Your task to perform on an android device: install app "Adobe Express: Graphic Design" Image 0: 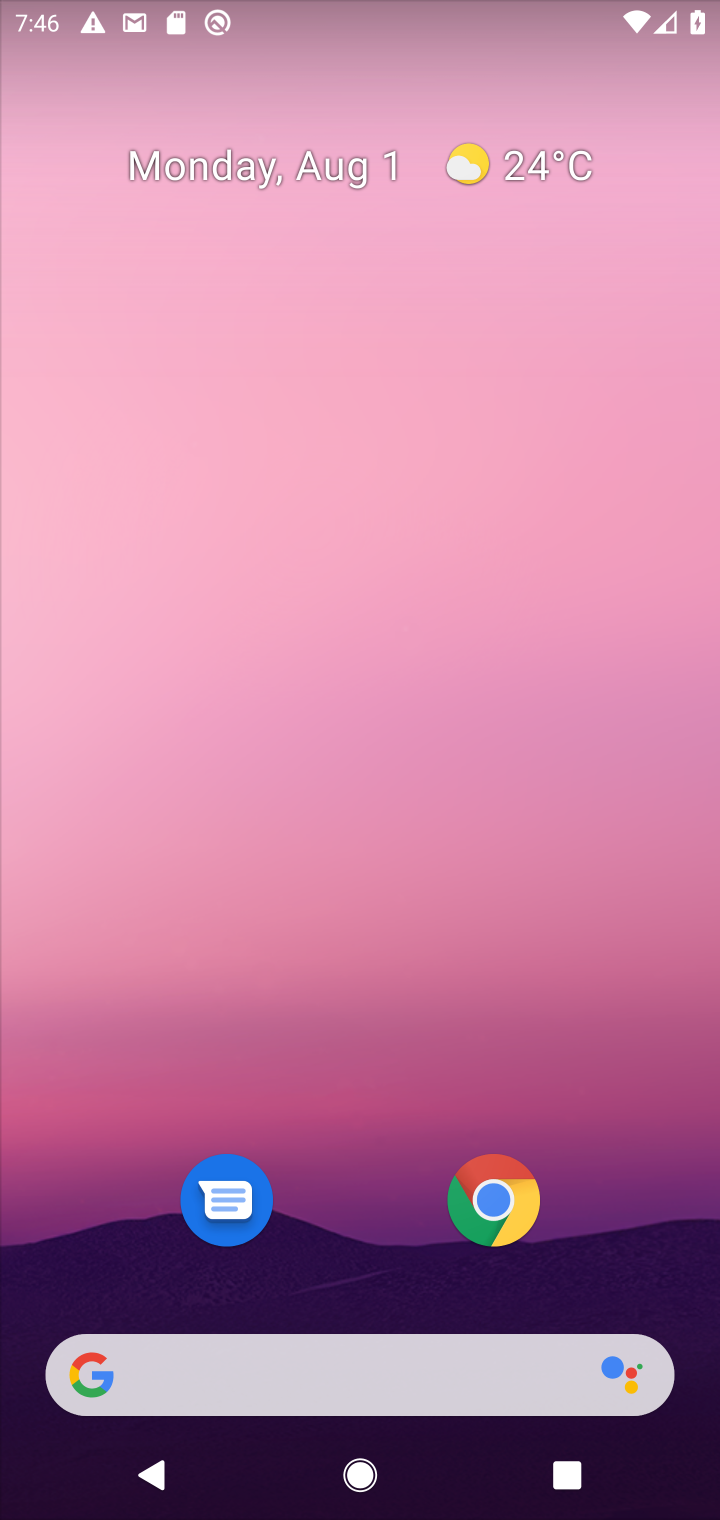
Step 0: drag from (411, 1108) to (440, 104)
Your task to perform on an android device: install app "Adobe Express: Graphic Design" Image 1: 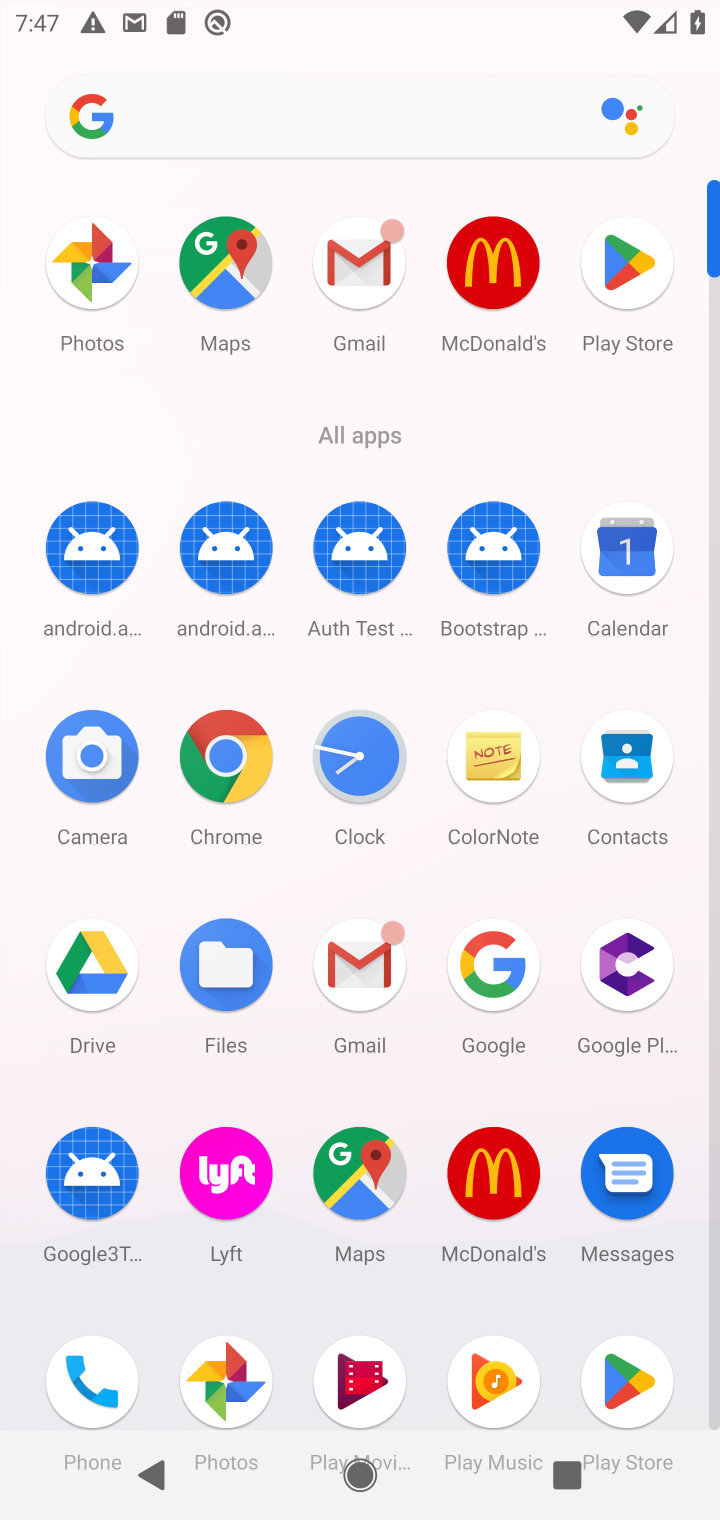
Step 1: click (622, 252)
Your task to perform on an android device: install app "Adobe Express: Graphic Design" Image 2: 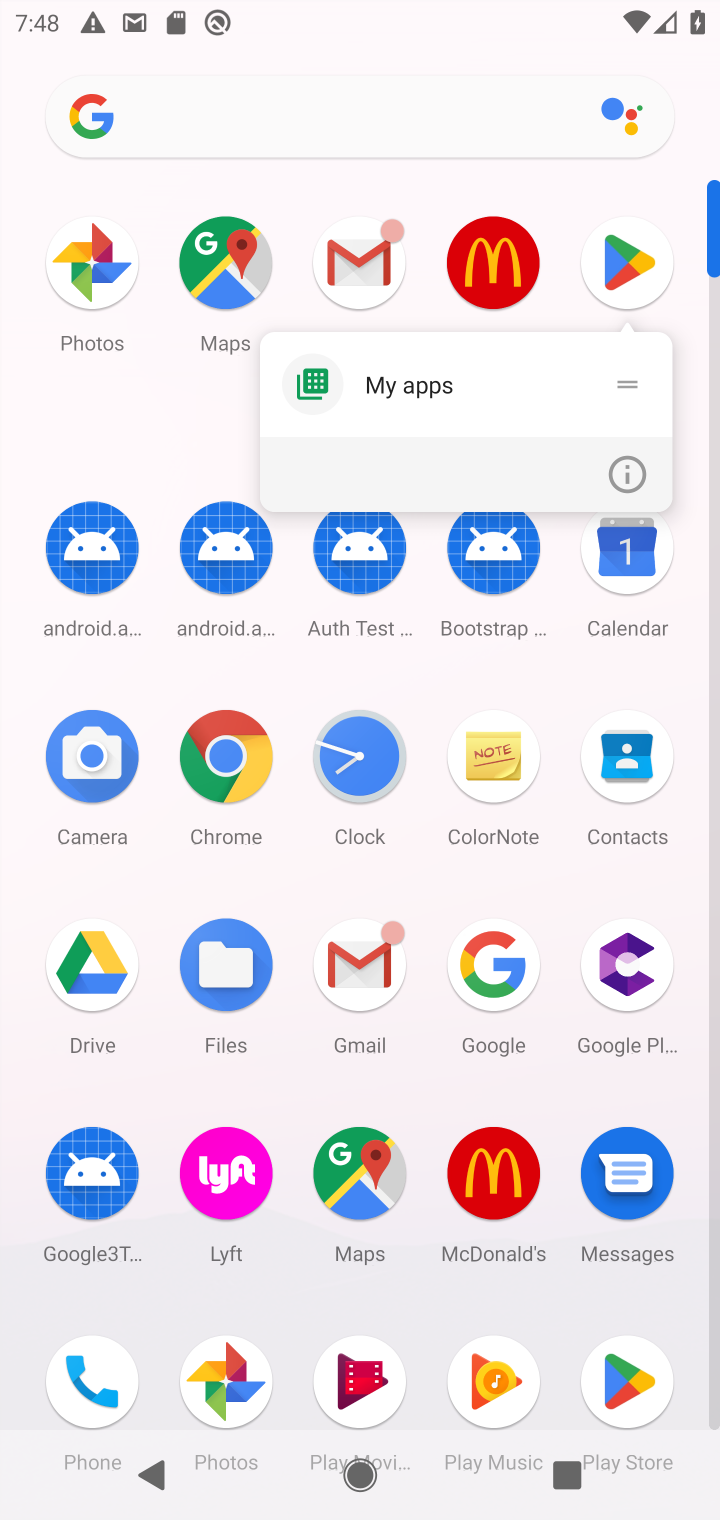
Step 2: click (627, 263)
Your task to perform on an android device: install app "Adobe Express: Graphic Design" Image 3: 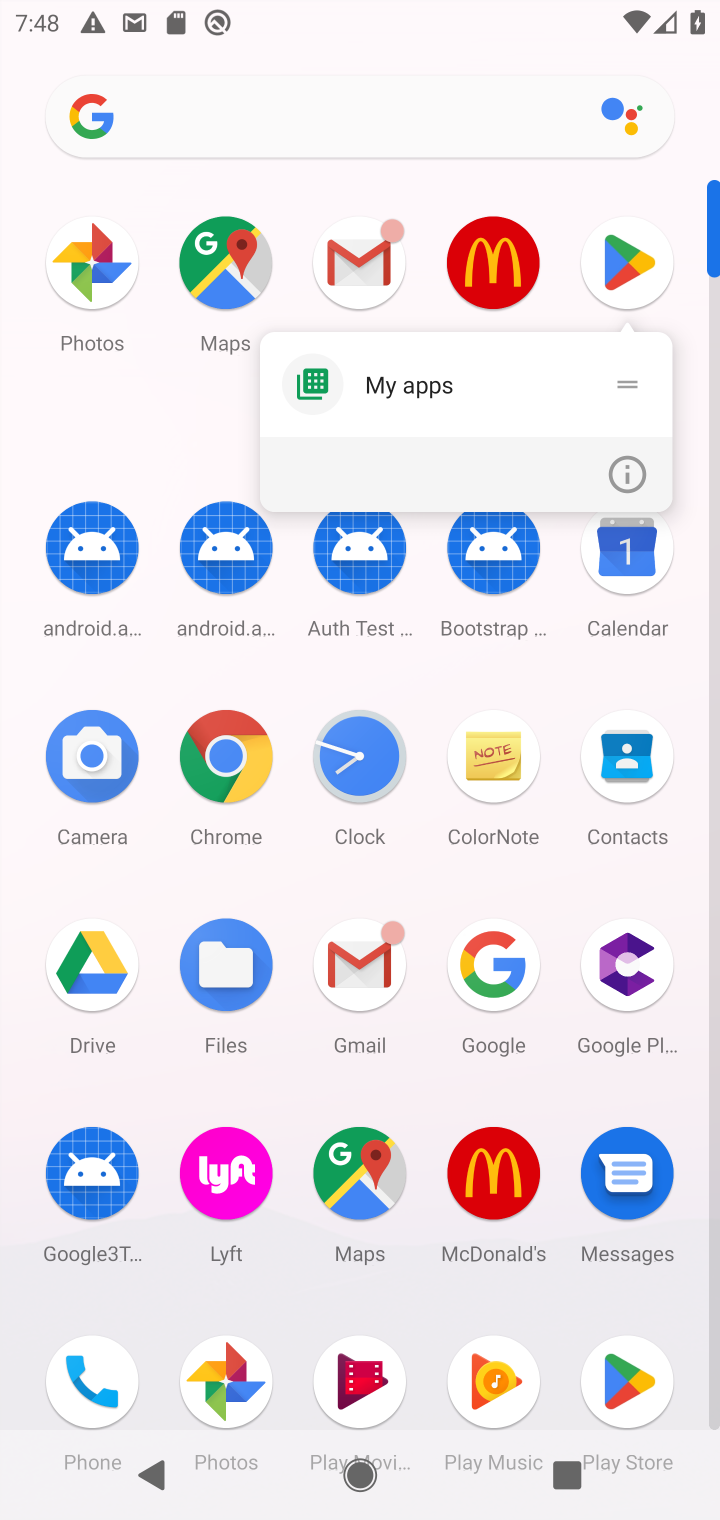
Step 3: click (627, 266)
Your task to perform on an android device: install app "Adobe Express: Graphic Design" Image 4: 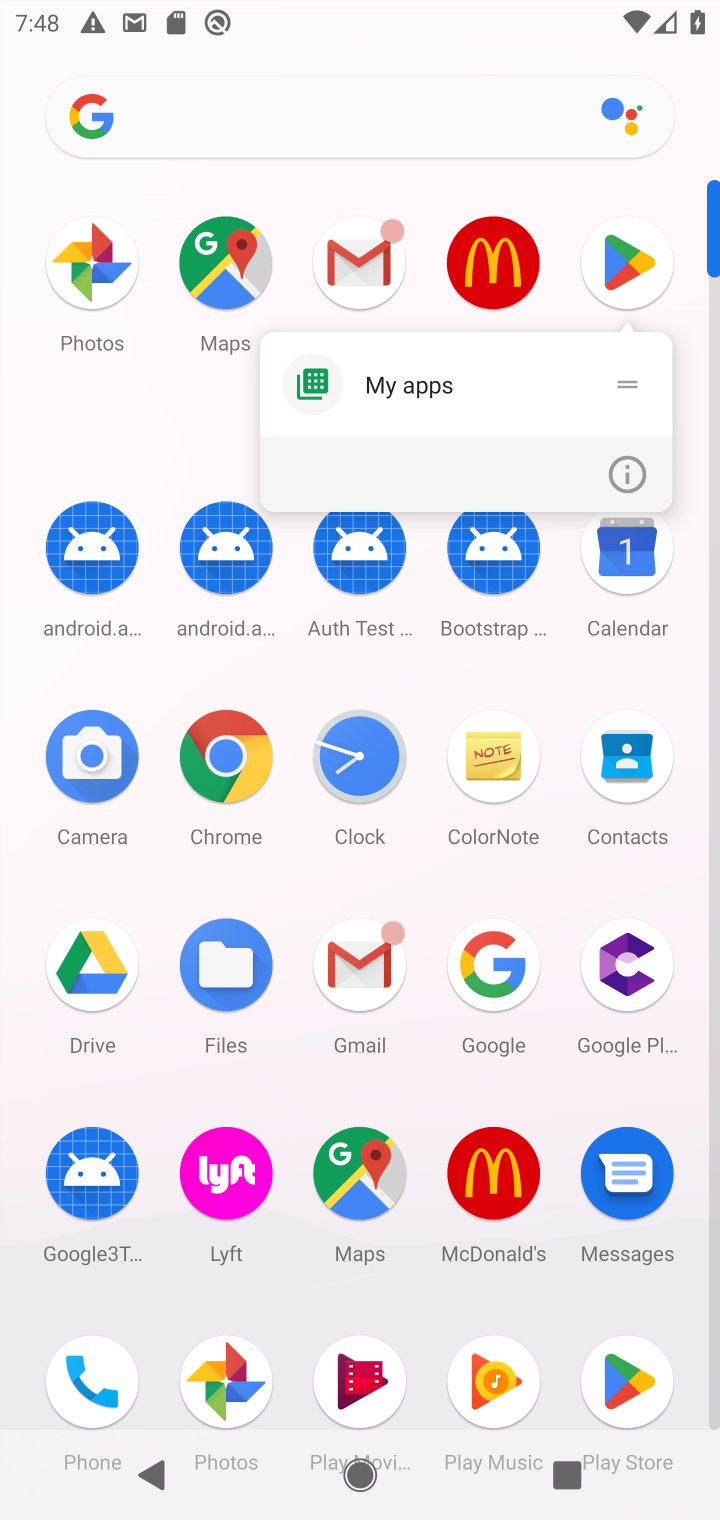
Step 4: click (640, 258)
Your task to perform on an android device: install app "Adobe Express: Graphic Design" Image 5: 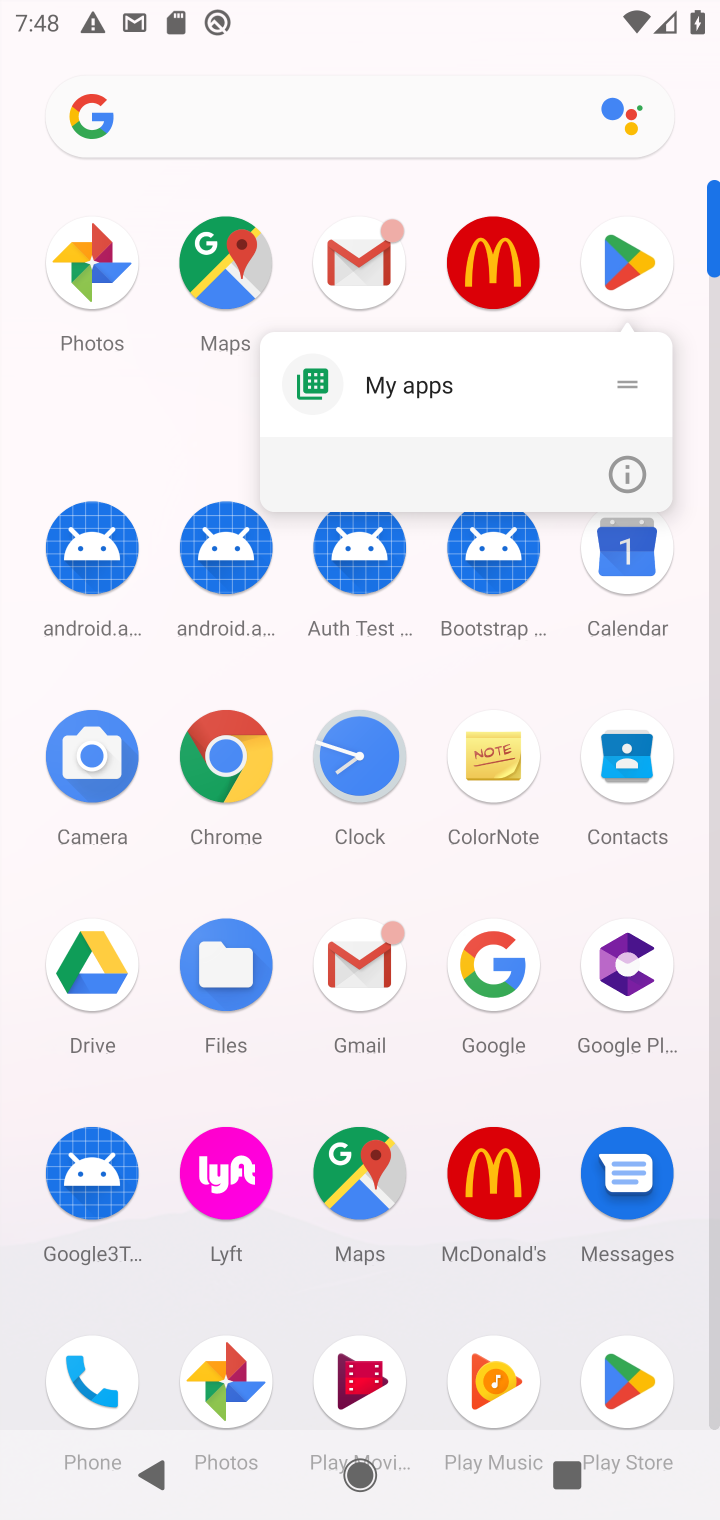
Step 5: click (640, 258)
Your task to perform on an android device: install app "Adobe Express: Graphic Design" Image 6: 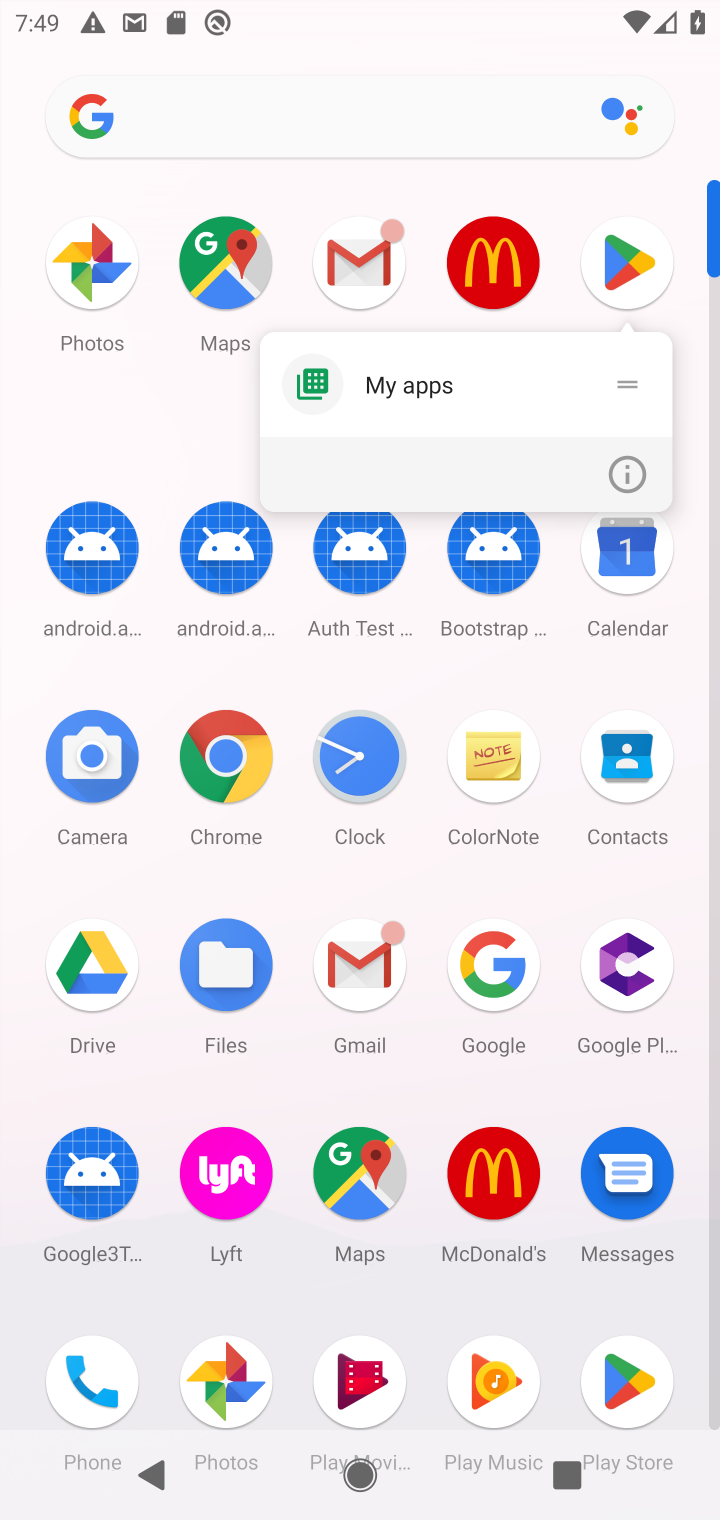
Step 6: click (605, 269)
Your task to perform on an android device: install app "Adobe Express: Graphic Design" Image 7: 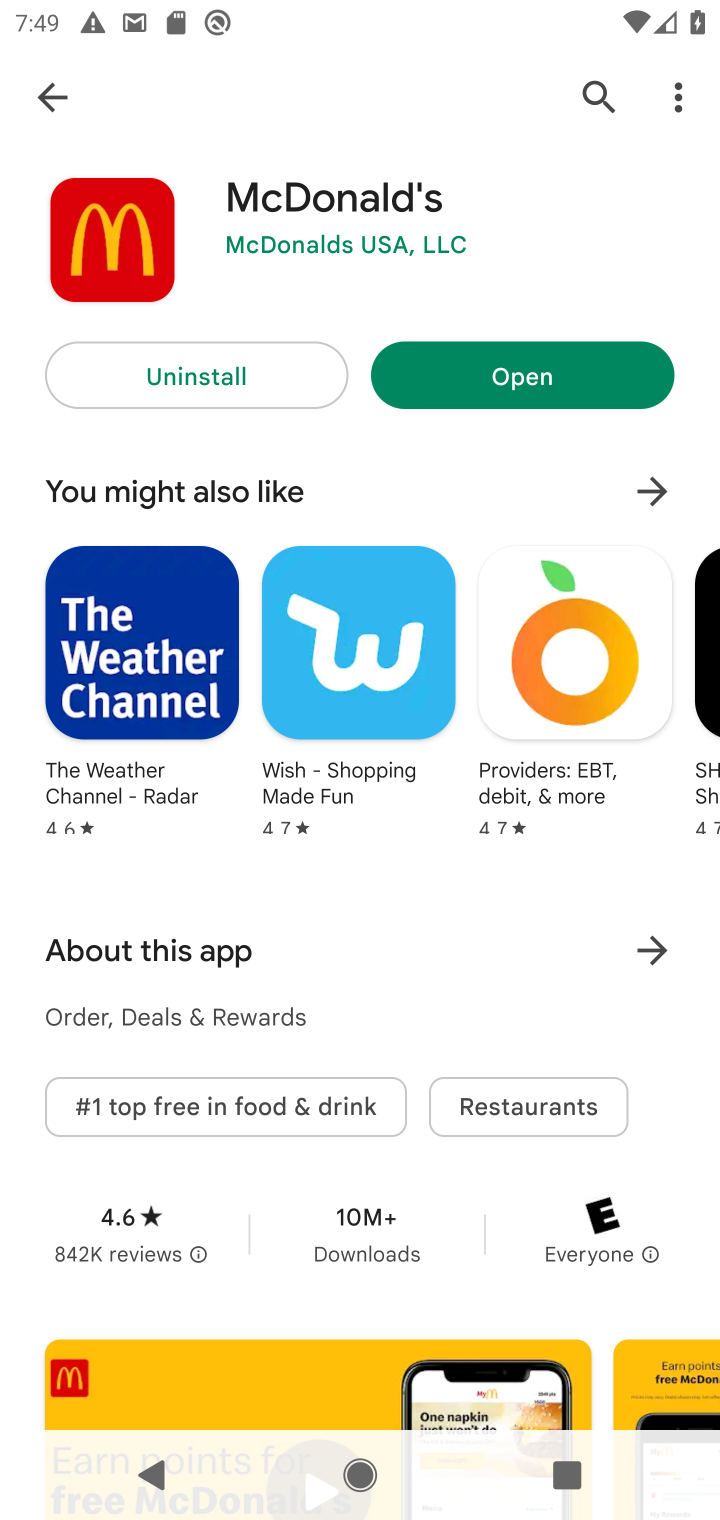
Step 7: click (63, 95)
Your task to perform on an android device: install app "Adobe Express: Graphic Design" Image 8: 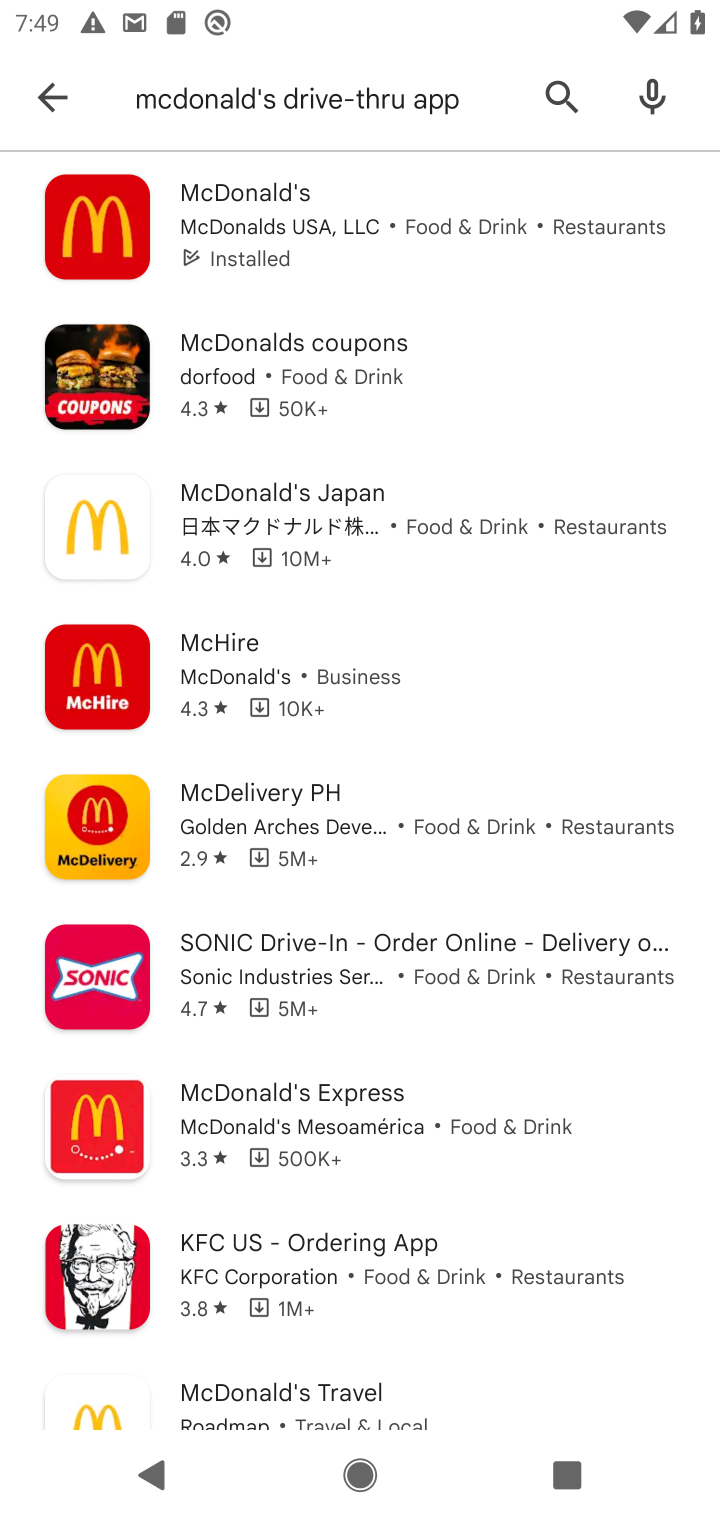
Step 8: click (550, 103)
Your task to perform on an android device: install app "Adobe Express: Graphic Design" Image 9: 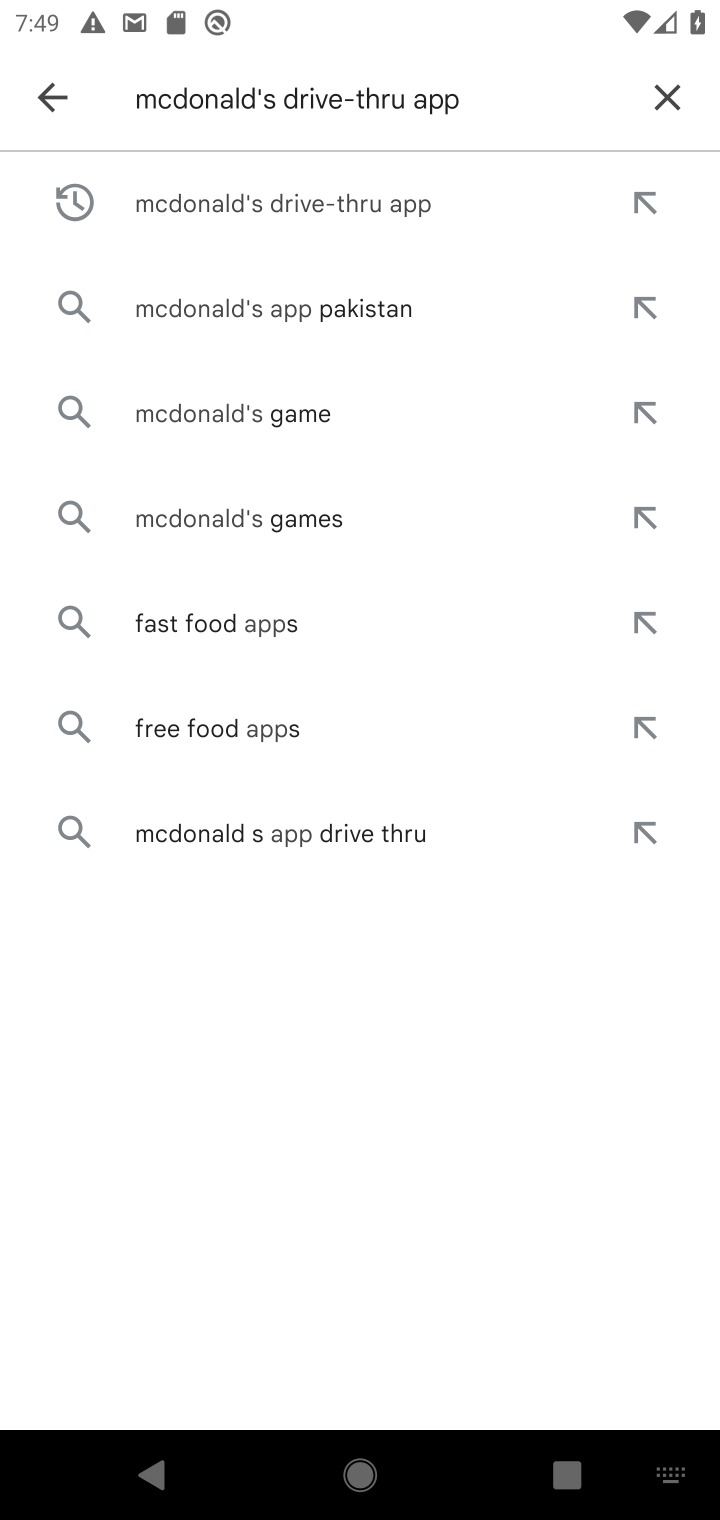
Step 9: click (669, 83)
Your task to perform on an android device: install app "Adobe Express: Graphic Design" Image 10: 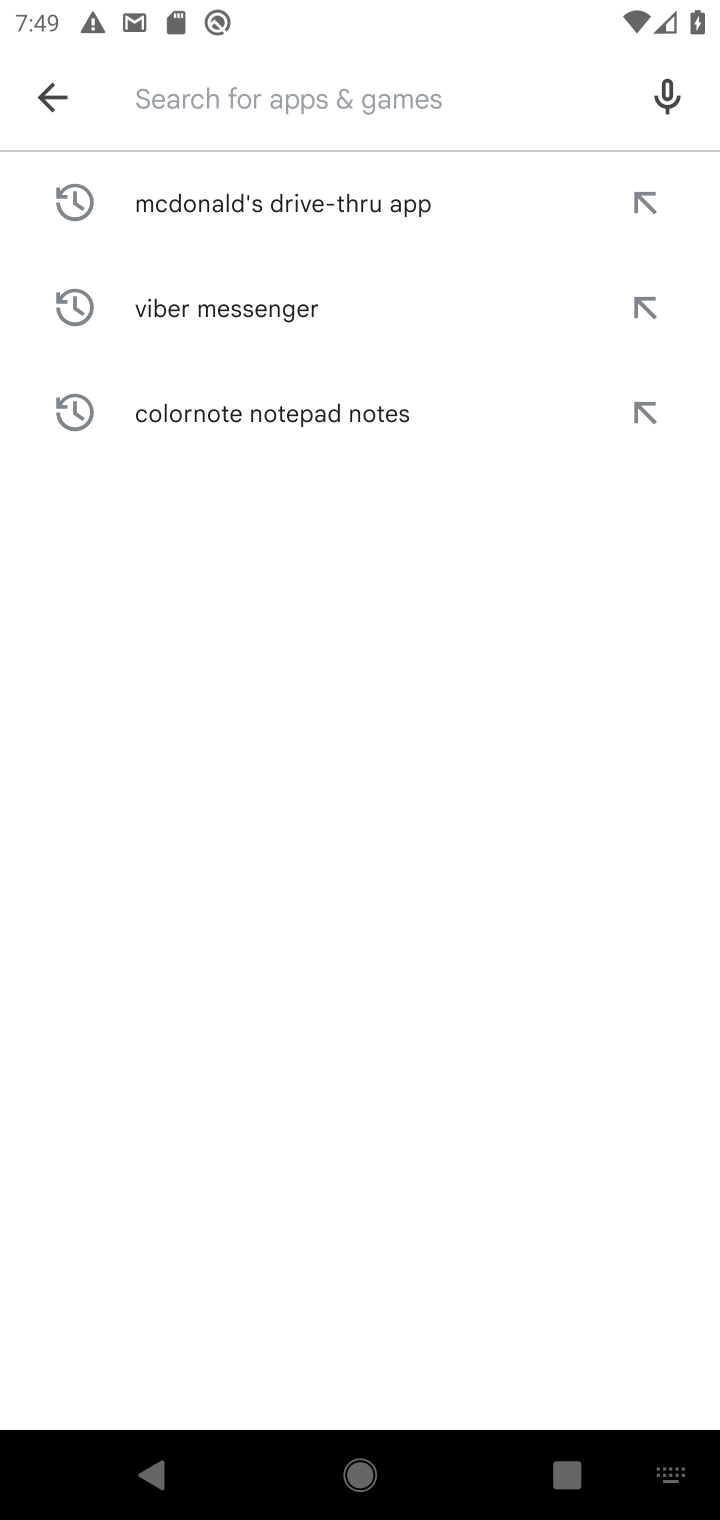
Step 10: type "Adobe Express: Graphic Design"
Your task to perform on an android device: install app "Adobe Express: Graphic Design" Image 11: 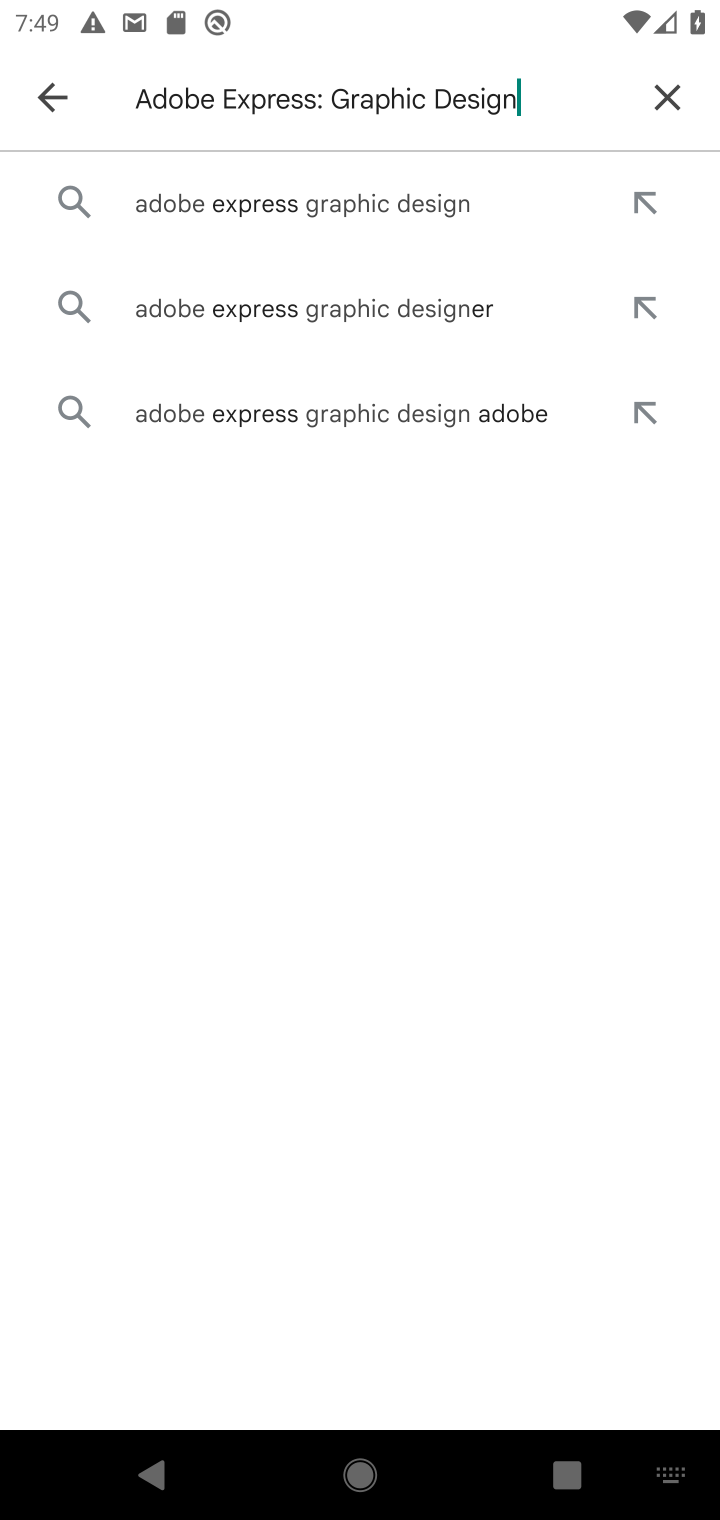
Step 11: click (225, 205)
Your task to perform on an android device: install app "Adobe Express: Graphic Design" Image 12: 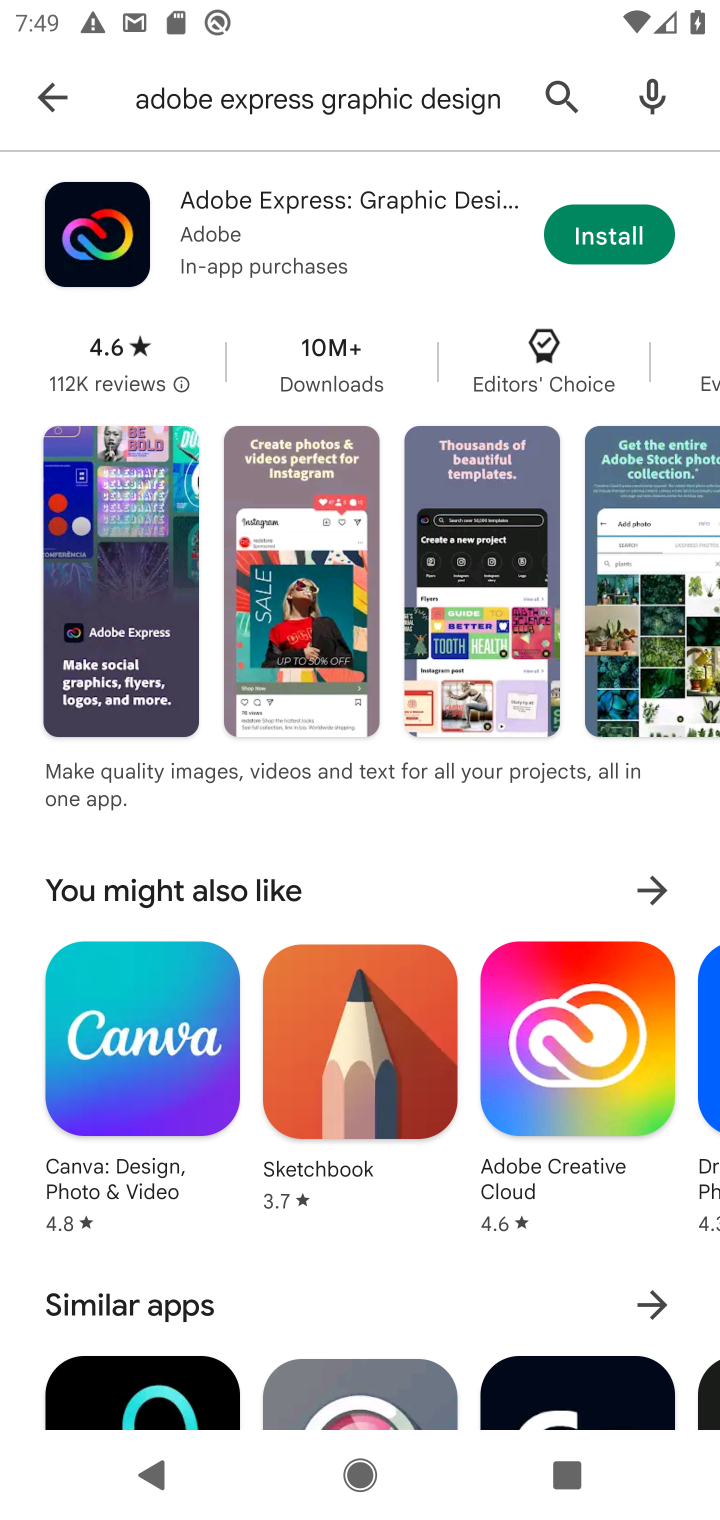
Step 12: click (607, 244)
Your task to perform on an android device: install app "Adobe Express: Graphic Design" Image 13: 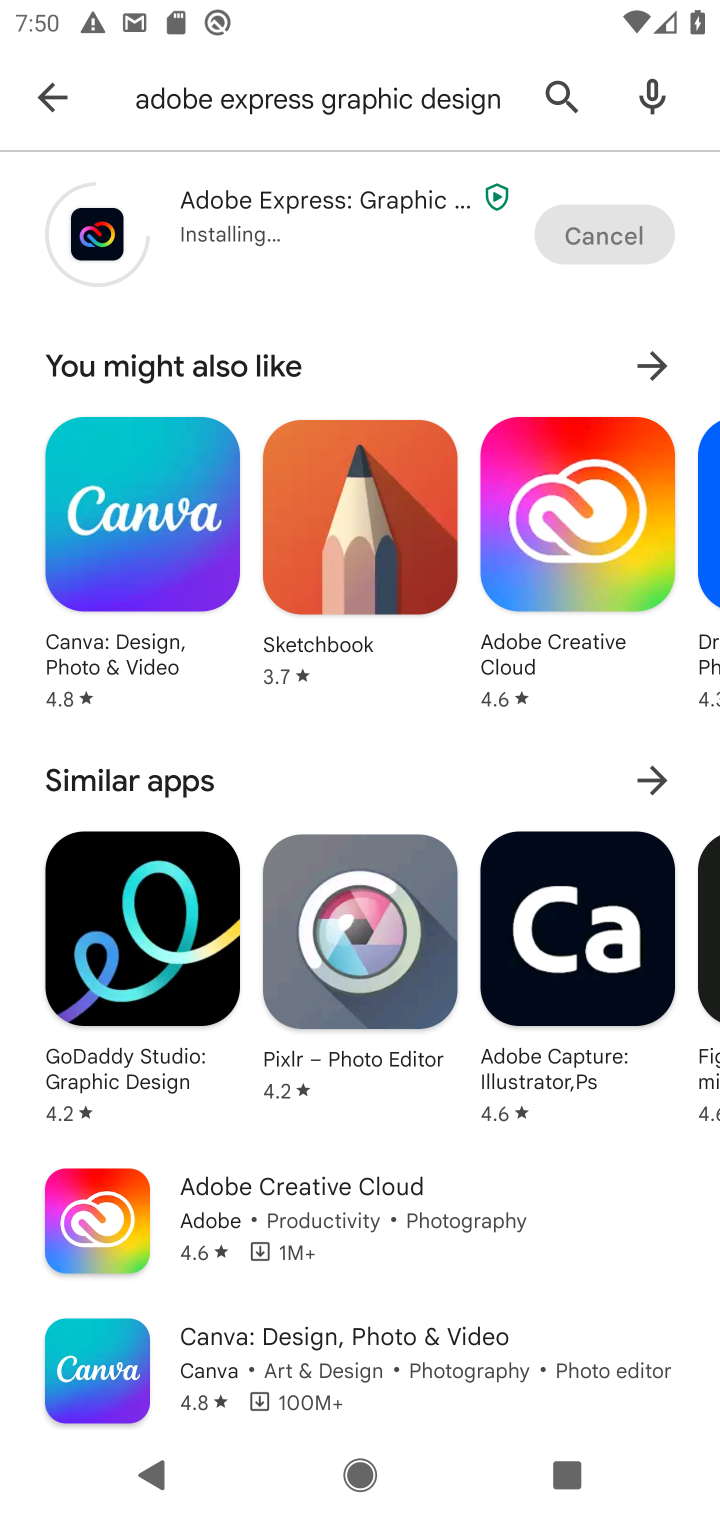
Step 13: task complete